Your task to perform on an android device: Search for Italian restaurants on Maps Image 0: 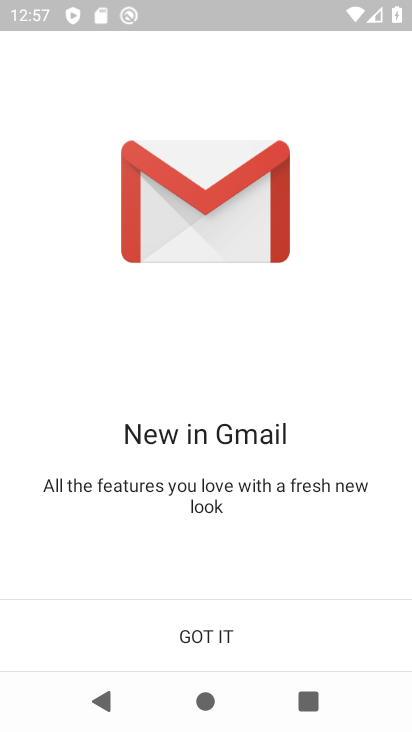
Step 0: click (250, 642)
Your task to perform on an android device: Search for Italian restaurants on Maps Image 1: 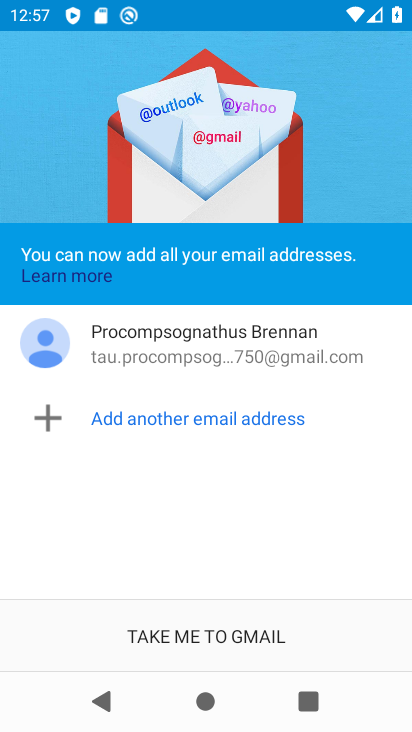
Step 1: click (253, 631)
Your task to perform on an android device: Search for Italian restaurants on Maps Image 2: 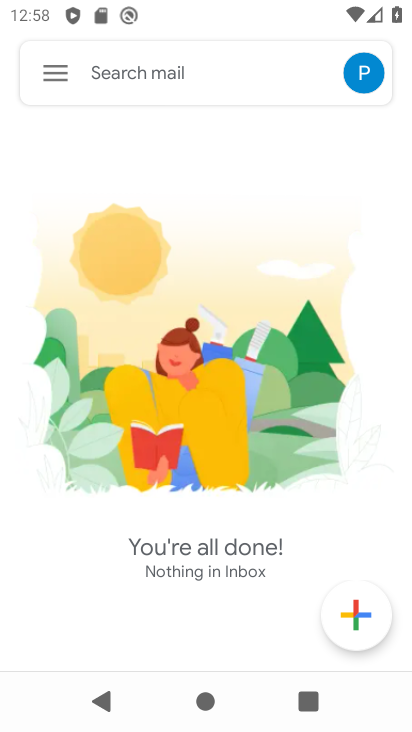
Step 2: press home button
Your task to perform on an android device: Search for Italian restaurants on Maps Image 3: 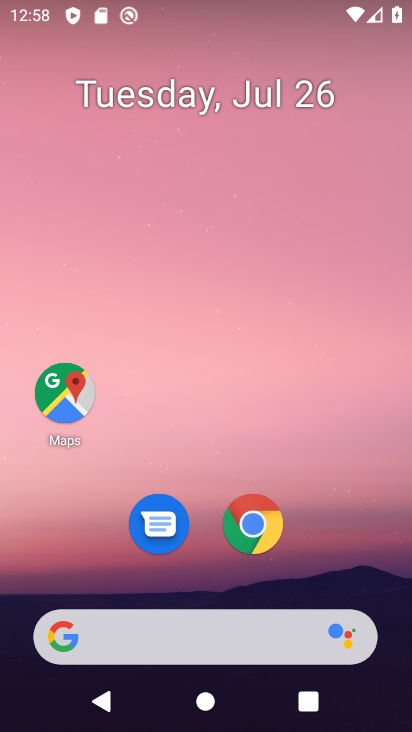
Step 3: click (67, 391)
Your task to perform on an android device: Search for Italian restaurants on Maps Image 4: 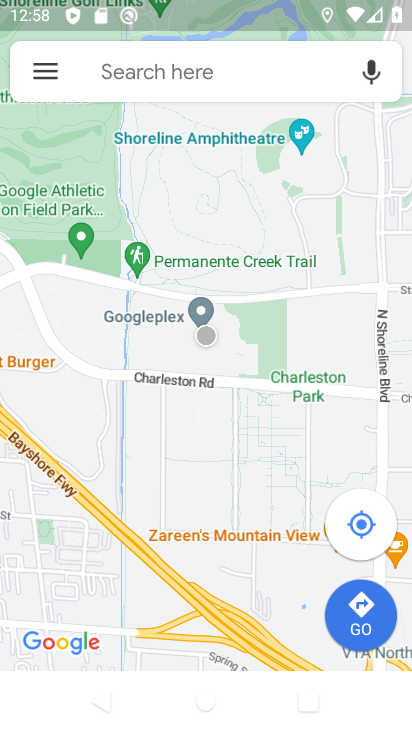
Step 4: click (154, 68)
Your task to perform on an android device: Search for Italian restaurants on Maps Image 5: 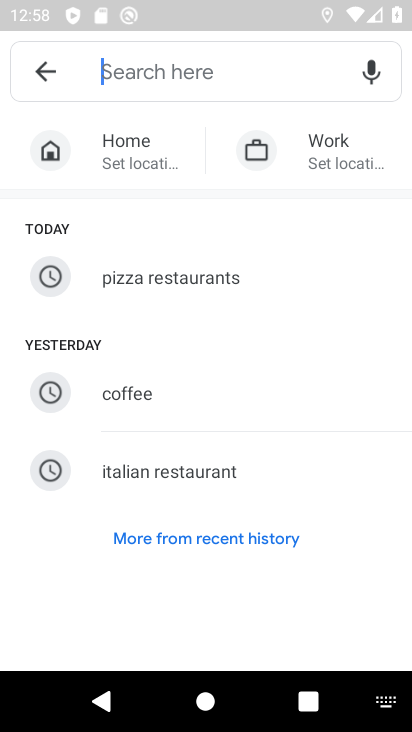
Step 5: click (177, 475)
Your task to perform on an android device: Search for Italian restaurants on Maps Image 6: 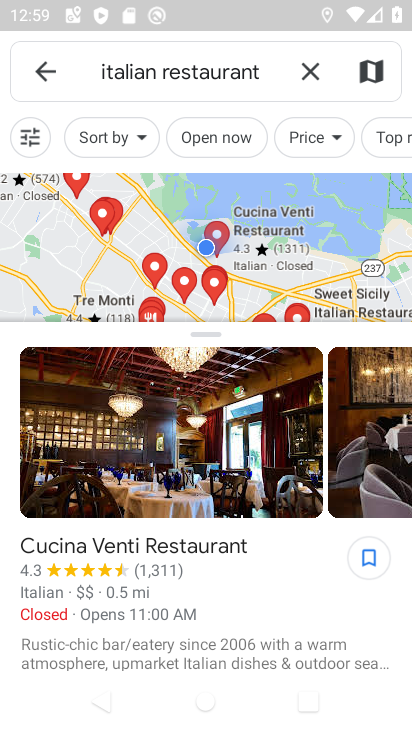
Step 6: task complete